Your task to perform on an android device: See recent photos Image 0: 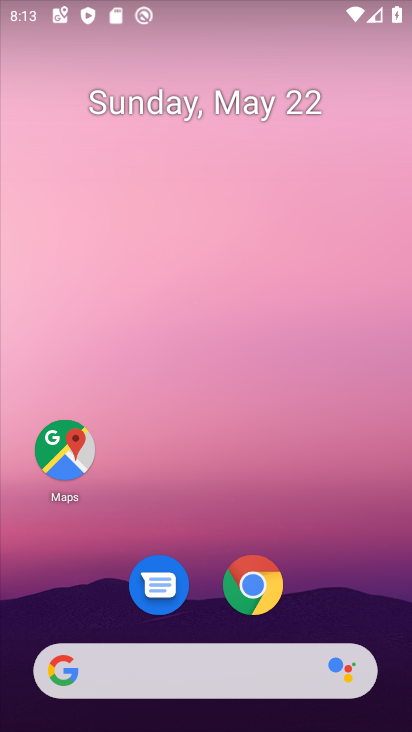
Step 0: drag from (284, 498) to (254, 44)
Your task to perform on an android device: See recent photos Image 1: 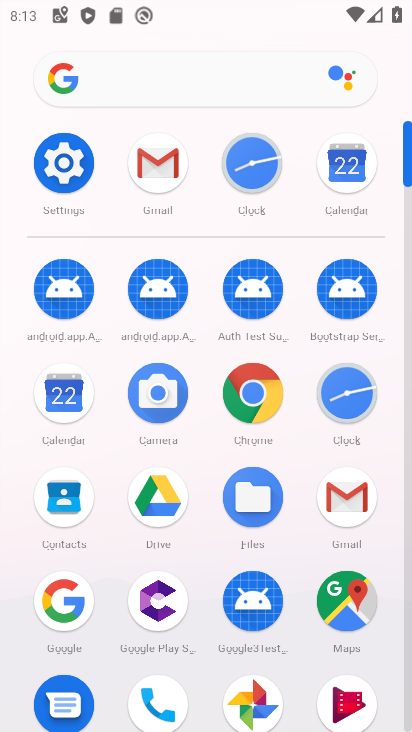
Step 1: click (249, 700)
Your task to perform on an android device: See recent photos Image 2: 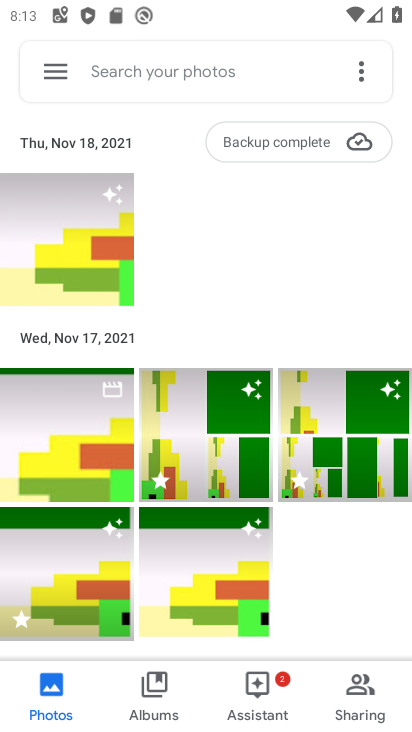
Step 2: task complete